Your task to perform on an android device: Open the calendar and show me this week's events? Image 0: 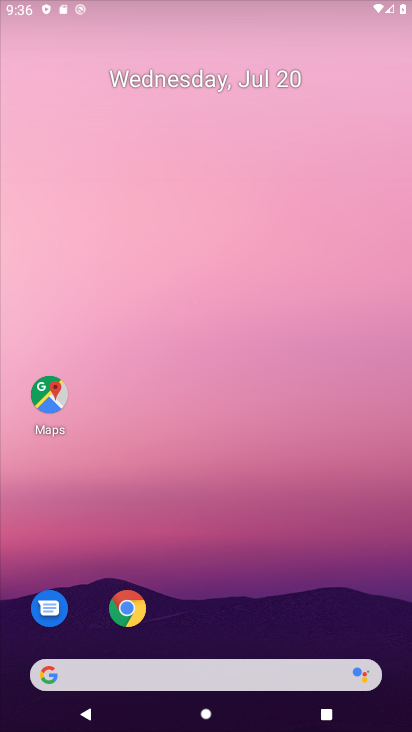
Step 0: drag from (237, 592) to (247, 215)
Your task to perform on an android device: Open the calendar and show me this week's events? Image 1: 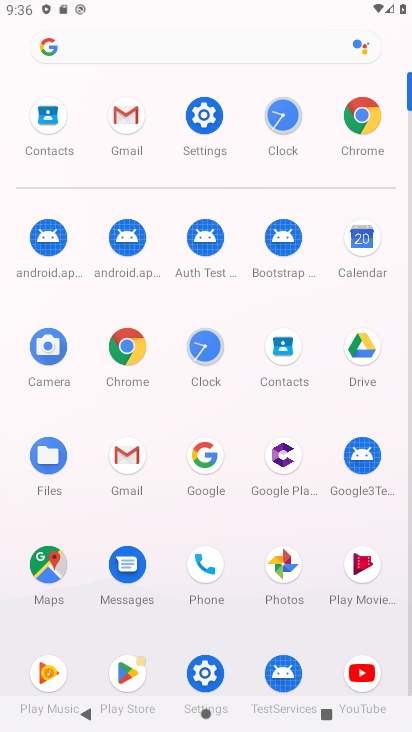
Step 1: click (375, 234)
Your task to perform on an android device: Open the calendar and show me this week's events? Image 2: 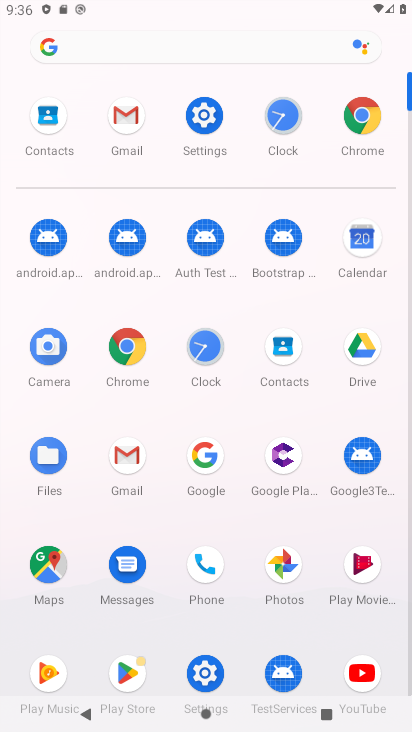
Step 2: click (379, 232)
Your task to perform on an android device: Open the calendar and show me this week's events? Image 3: 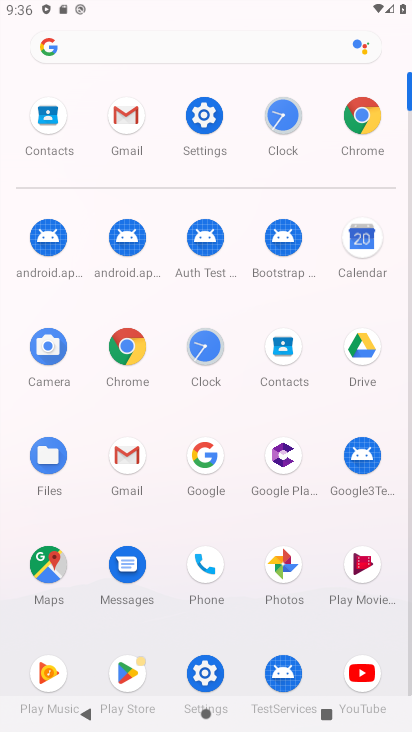
Step 3: click (379, 232)
Your task to perform on an android device: Open the calendar and show me this week's events? Image 4: 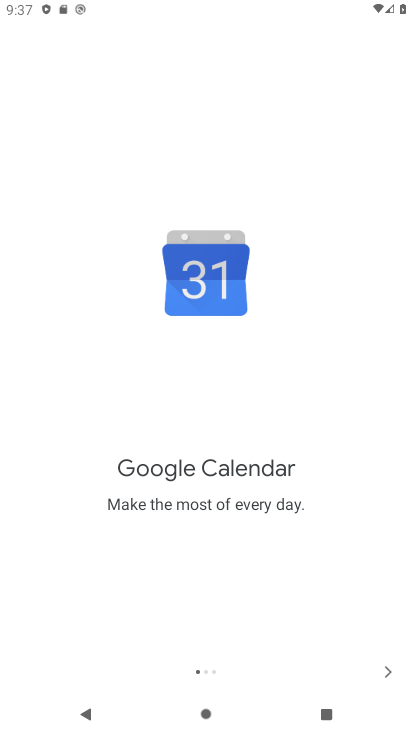
Step 4: click (388, 667)
Your task to perform on an android device: Open the calendar and show me this week's events? Image 5: 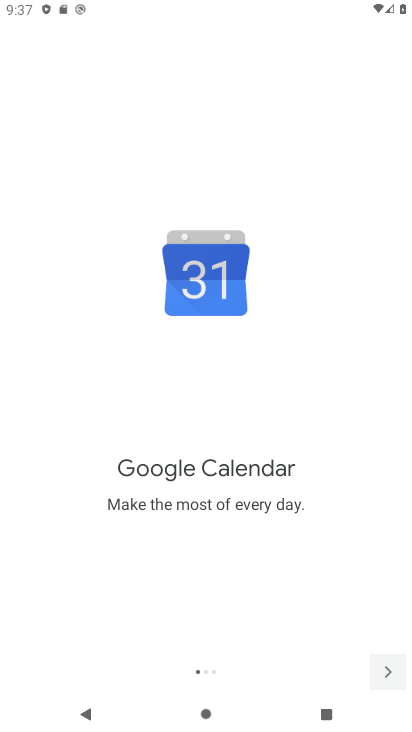
Step 5: click (387, 666)
Your task to perform on an android device: Open the calendar and show me this week's events? Image 6: 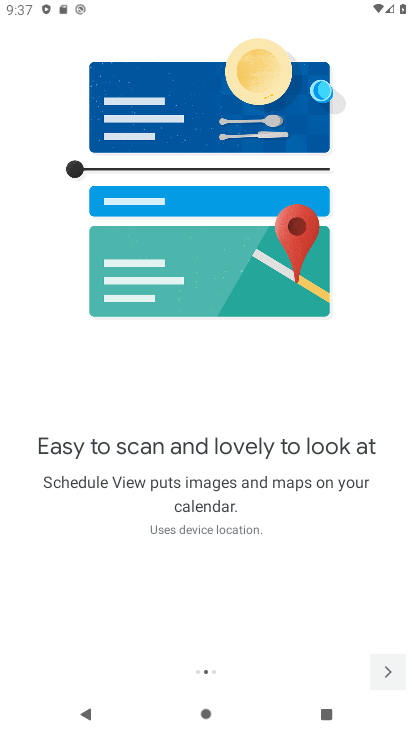
Step 6: click (387, 670)
Your task to perform on an android device: Open the calendar and show me this week's events? Image 7: 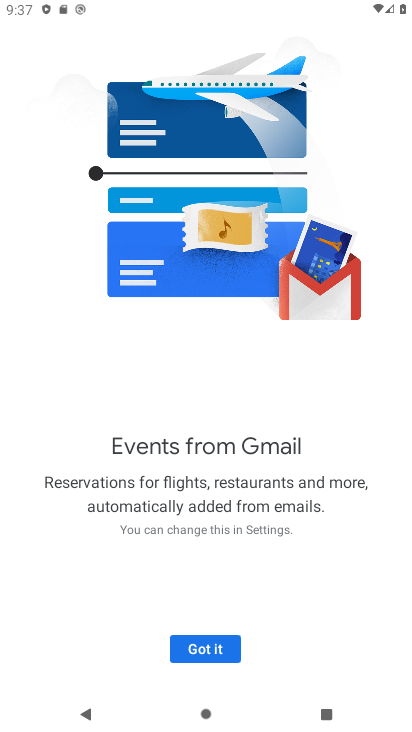
Step 7: click (387, 671)
Your task to perform on an android device: Open the calendar and show me this week's events? Image 8: 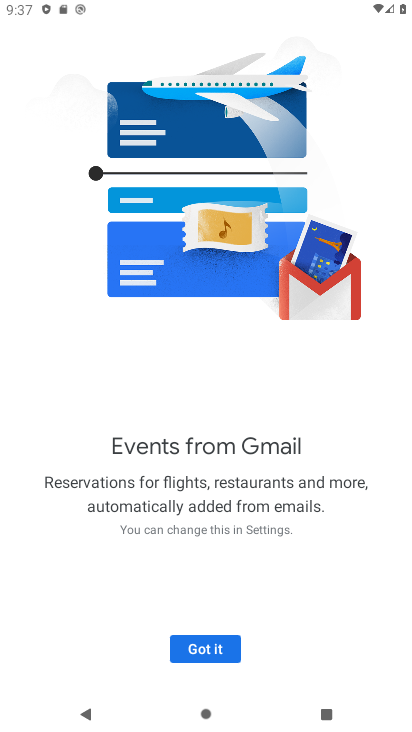
Step 8: click (221, 652)
Your task to perform on an android device: Open the calendar and show me this week's events? Image 9: 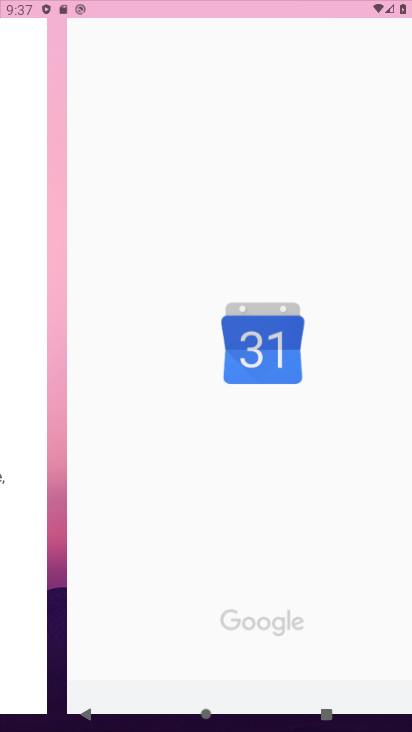
Step 9: click (214, 653)
Your task to perform on an android device: Open the calendar and show me this week's events? Image 10: 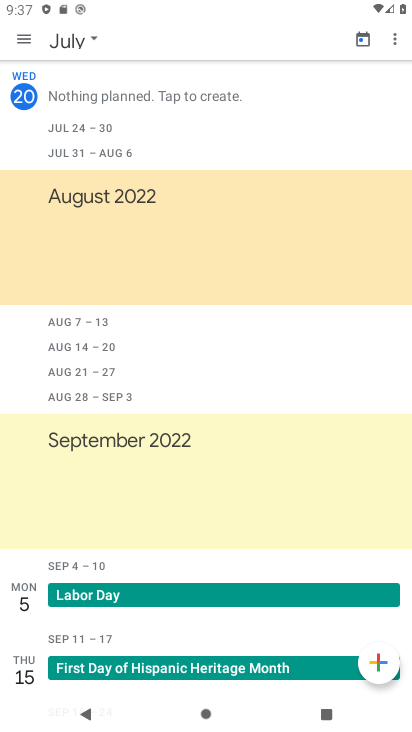
Step 10: click (96, 39)
Your task to perform on an android device: Open the calendar and show me this week's events? Image 11: 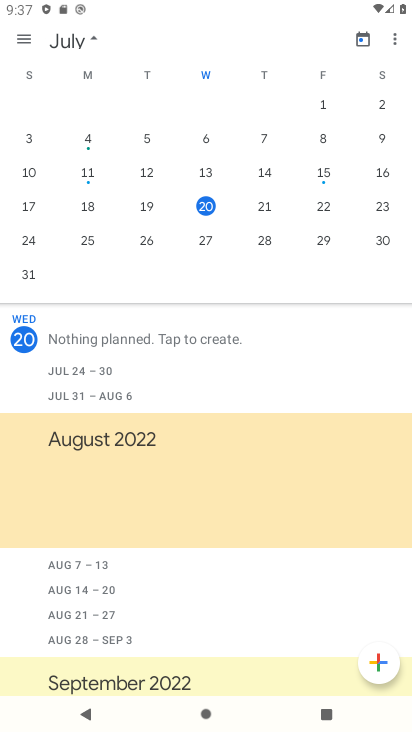
Step 11: click (381, 202)
Your task to perform on an android device: Open the calendar and show me this week's events? Image 12: 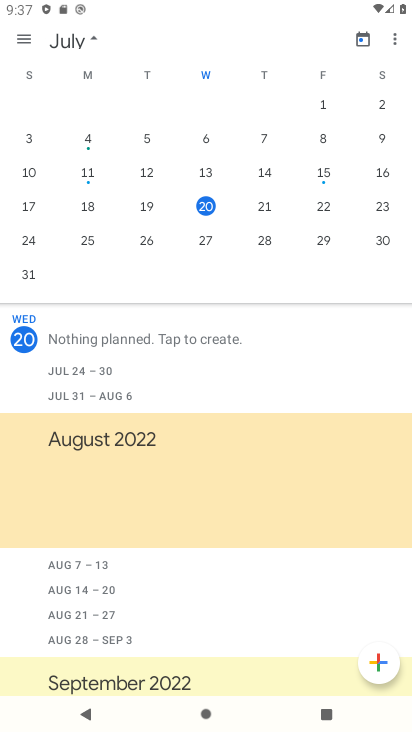
Step 12: click (385, 206)
Your task to perform on an android device: Open the calendar and show me this week's events? Image 13: 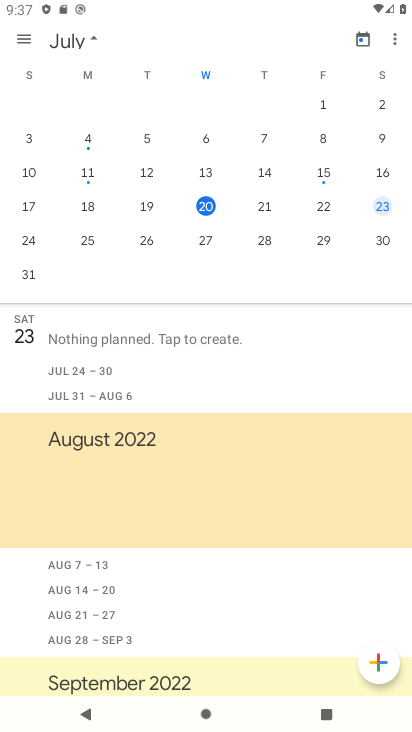
Step 13: click (385, 208)
Your task to perform on an android device: Open the calendar and show me this week's events? Image 14: 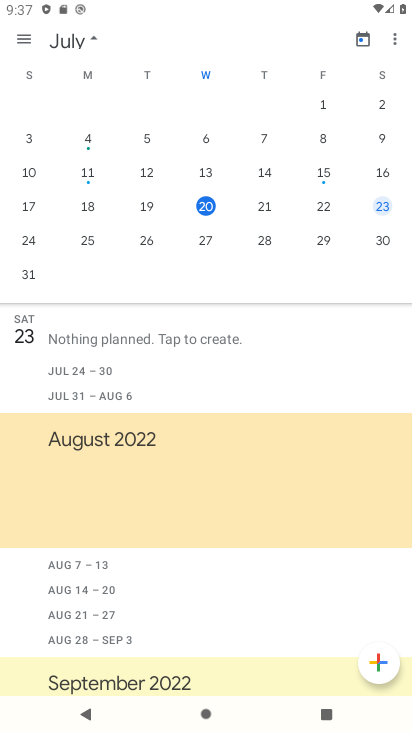
Step 14: click (384, 207)
Your task to perform on an android device: Open the calendar and show me this week's events? Image 15: 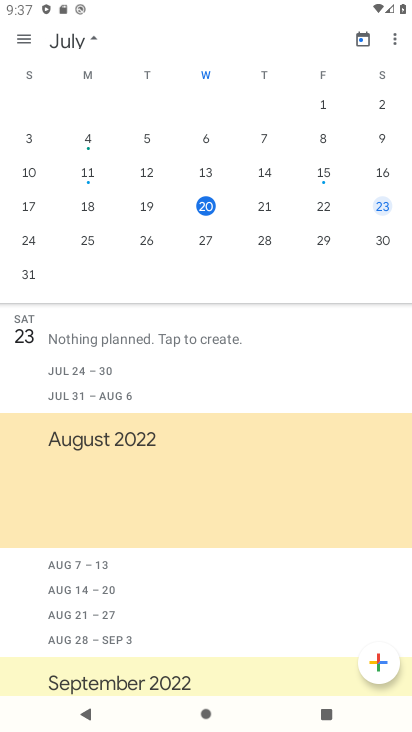
Step 15: task complete